Your task to perform on an android device: Go to sound settings Image 0: 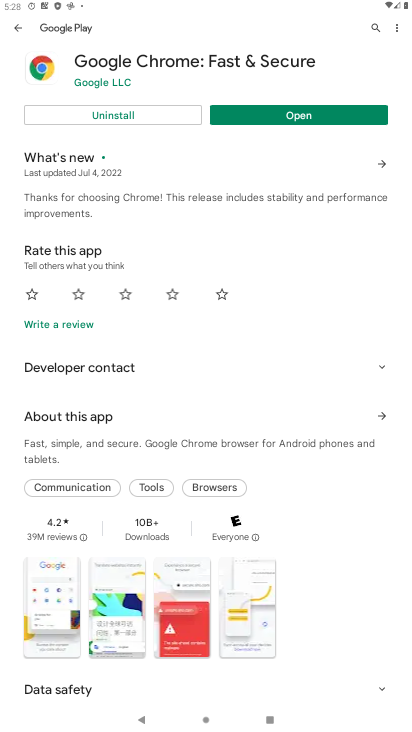
Step 0: press home button
Your task to perform on an android device: Go to sound settings Image 1: 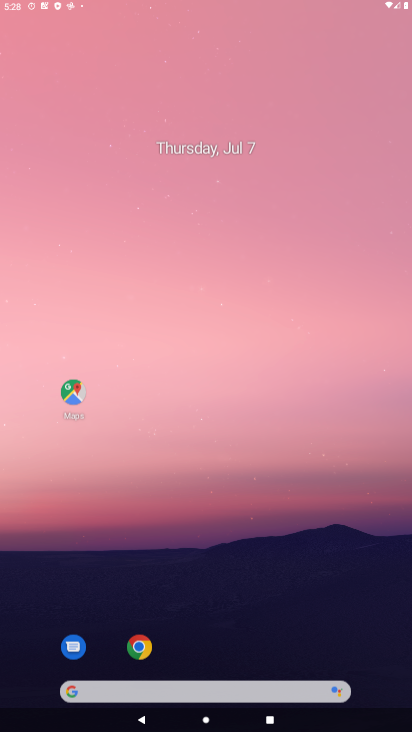
Step 1: drag from (382, 722) to (241, 100)
Your task to perform on an android device: Go to sound settings Image 2: 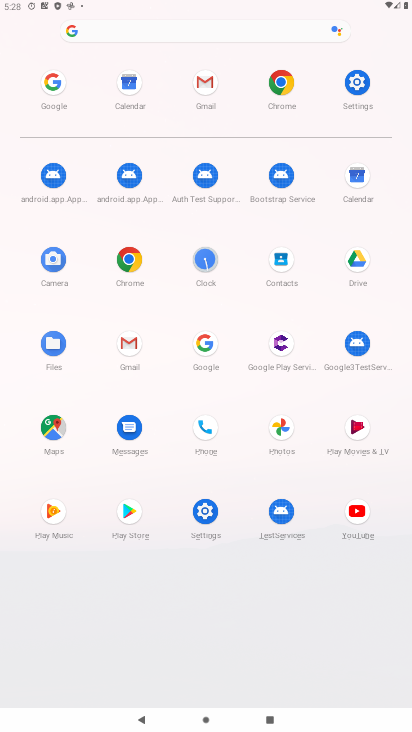
Step 2: click (357, 88)
Your task to perform on an android device: Go to sound settings Image 3: 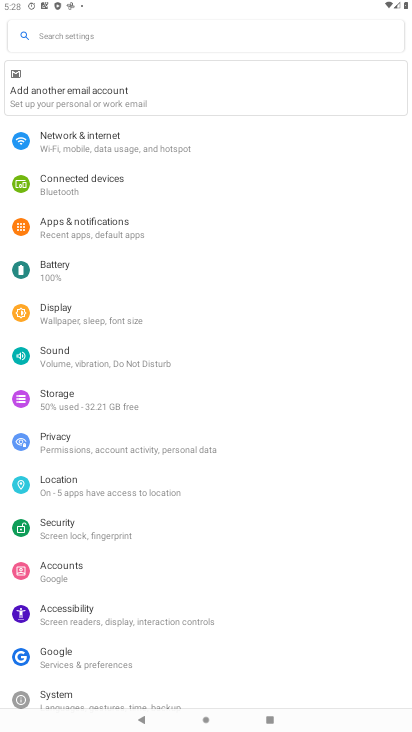
Step 3: click (62, 355)
Your task to perform on an android device: Go to sound settings Image 4: 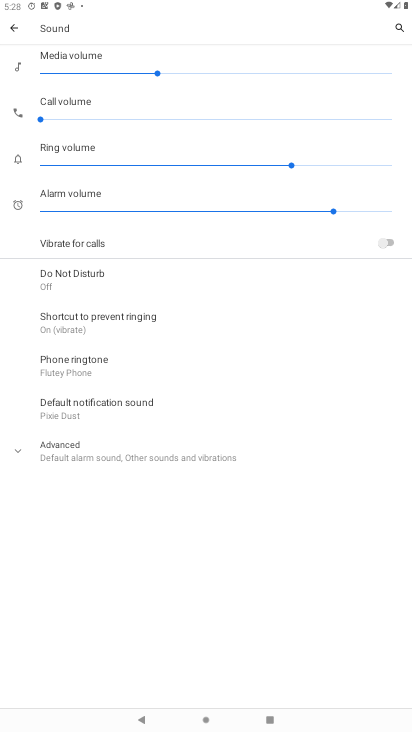
Step 4: task complete